Your task to perform on an android device: Open settings Image 0: 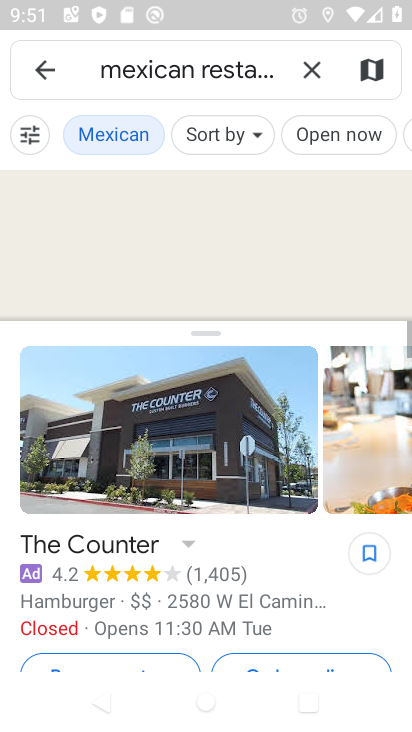
Step 0: press home button
Your task to perform on an android device: Open settings Image 1: 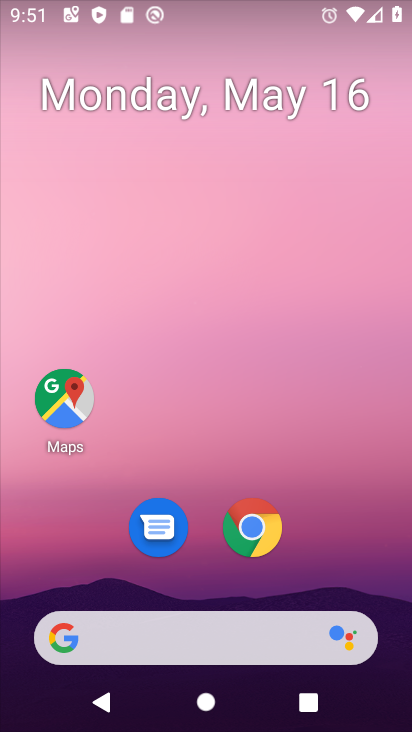
Step 1: drag from (318, 589) to (318, 29)
Your task to perform on an android device: Open settings Image 2: 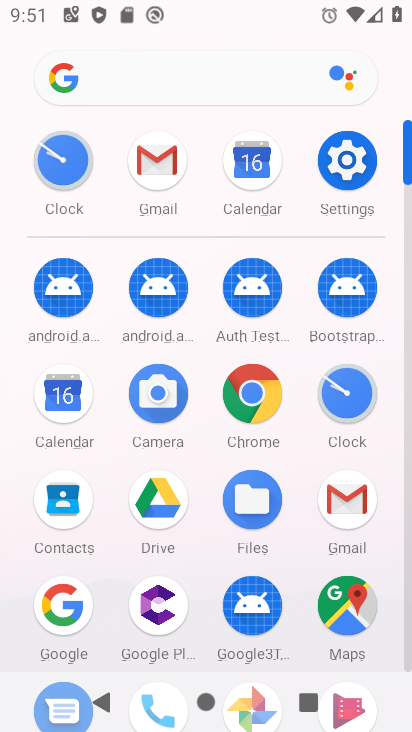
Step 2: click (354, 163)
Your task to perform on an android device: Open settings Image 3: 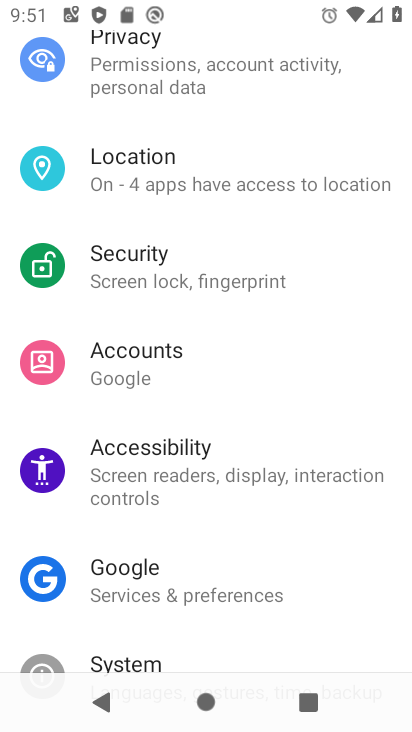
Step 3: task complete